Your task to perform on an android device: Open accessibility settings Image 0: 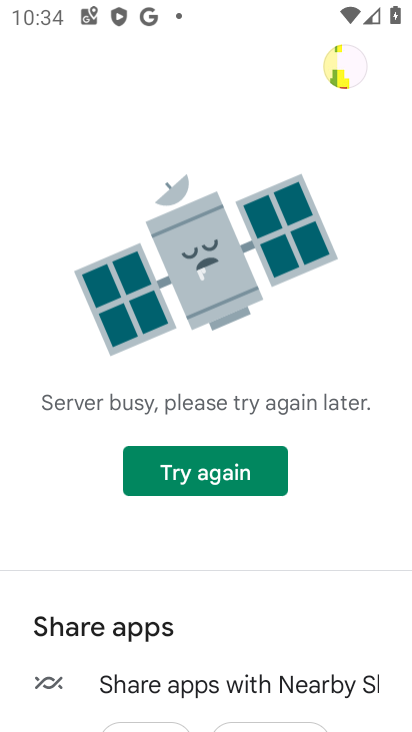
Step 0: press home button
Your task to perform on an android device: Open accessibility settings Image 1: 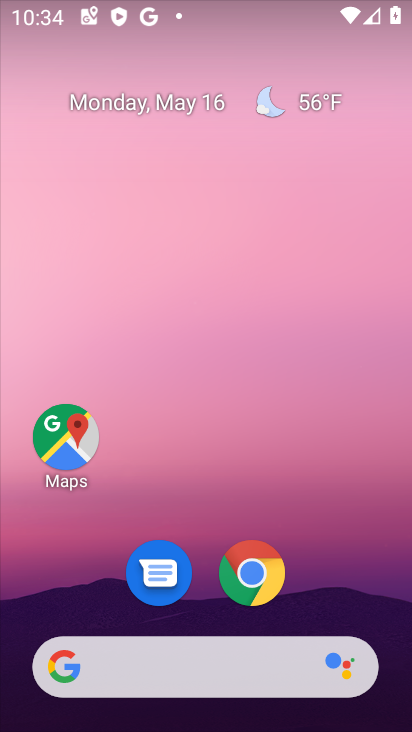
Step 1: drag from (321, 557) to (312, 64)
Your task to perform on an android device: Open accessibility settings Image 2: 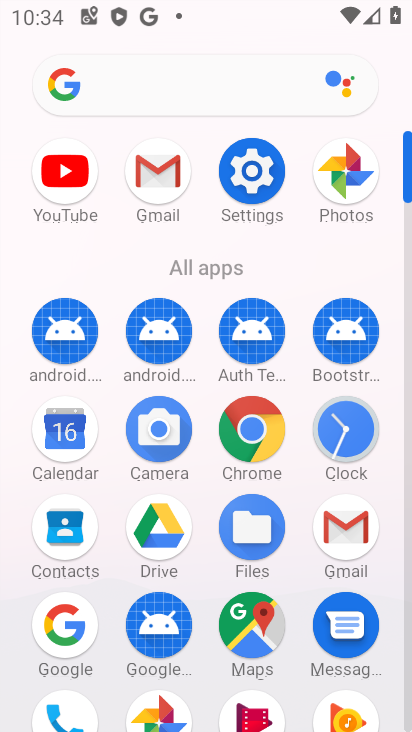
Step 2: click (272, 155)
Your task to perform on an android device: Open accessibility settings Image 3: 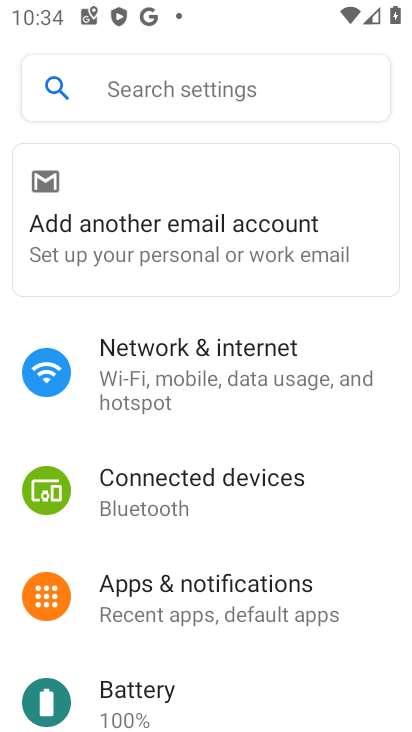
Step 3: drag from (179, 477) to (186, 139)
Your task to perform on an android device: Open accessibility settings Image 4: 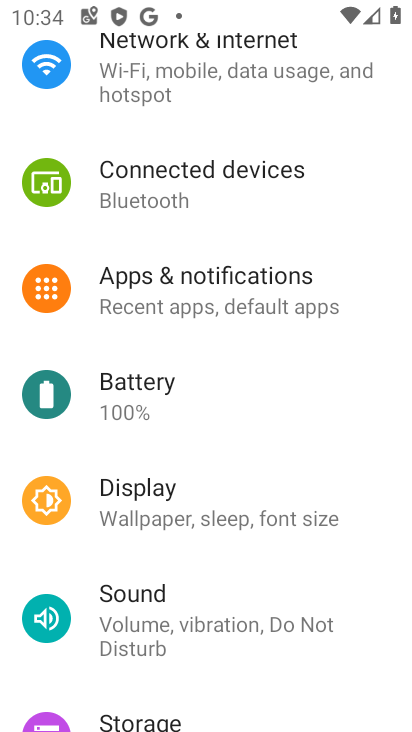
Step 4: drag from (293, 573) to (242, 10)
Your task to perform on an android device: Open accessibility settings Image 5: 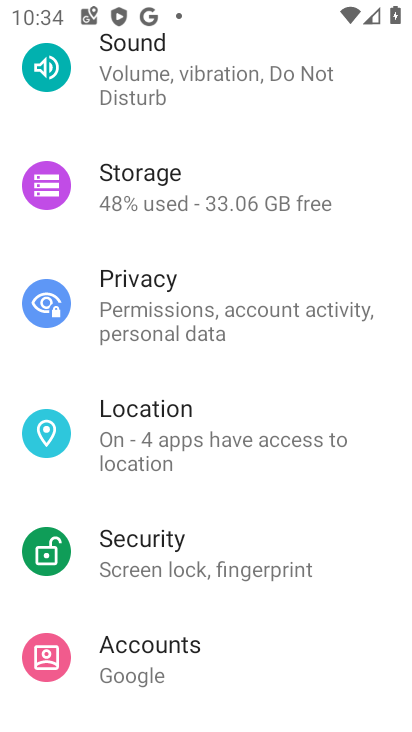
Step 5: drag from (353, 637) to (346, 248)
Your task to perform on an android device: Open accessibility settings Image 6: 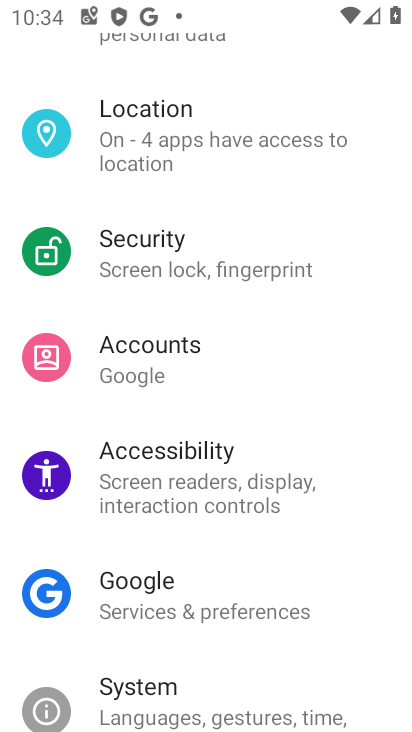
Step 6: click (211, 491)
Your task to perform on an android device: Open accessibility settings Image 7: 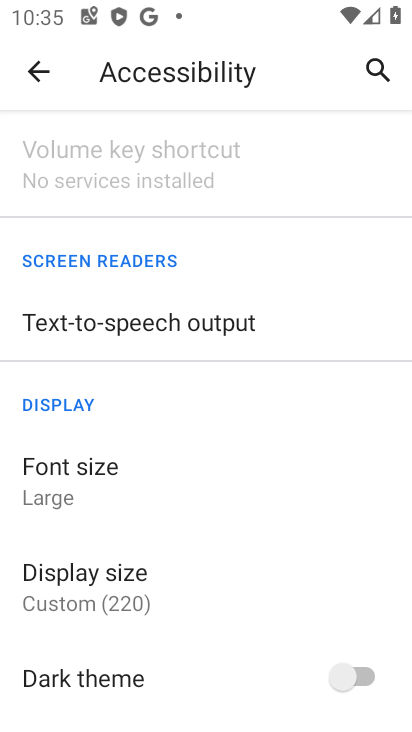
Step 7: task complete